Your task to perform on an android device: Go to display settings Image 0: 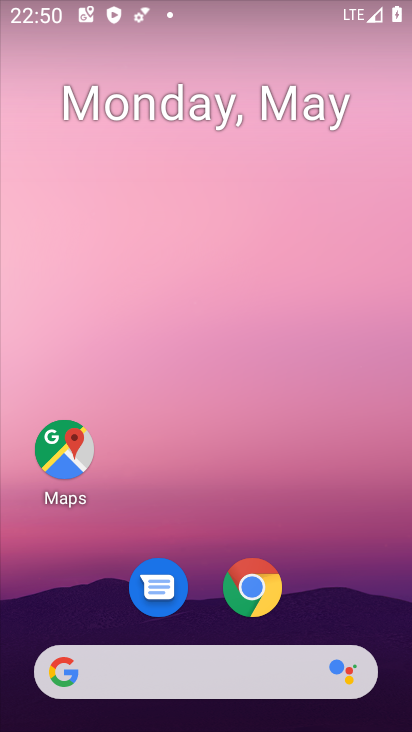
Step 0: drag from (220, 622) to (191, 9)
Your task to perform on an android device: Go to display settings Image 1: 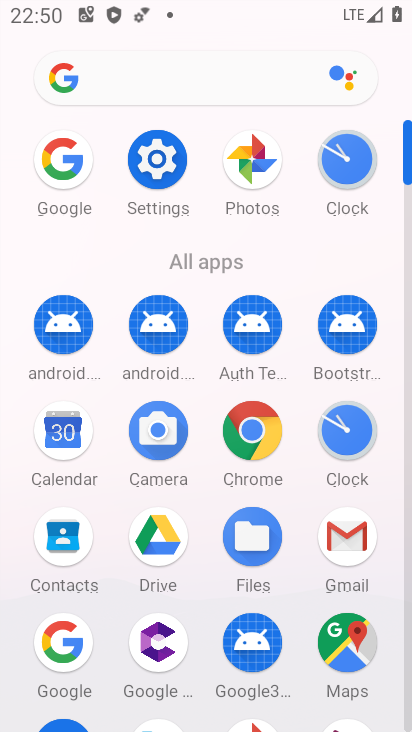
Step 1: click (148, 159)
Your task to perform on an android device: Go to display settings Image 2: 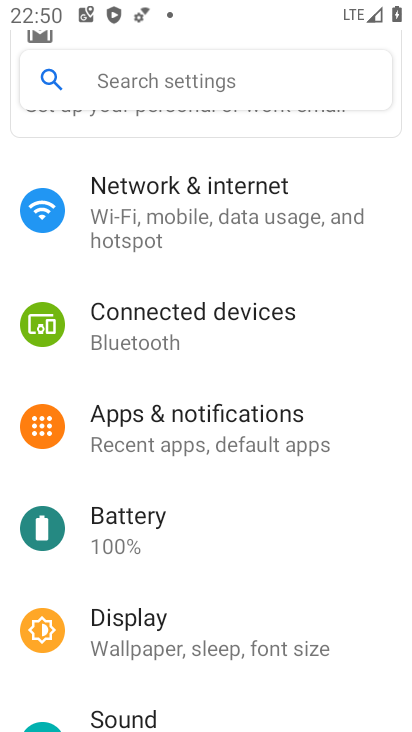
Step 2: click (187, 622)
Your task to perform on an android device: Go to display settings Image 3: 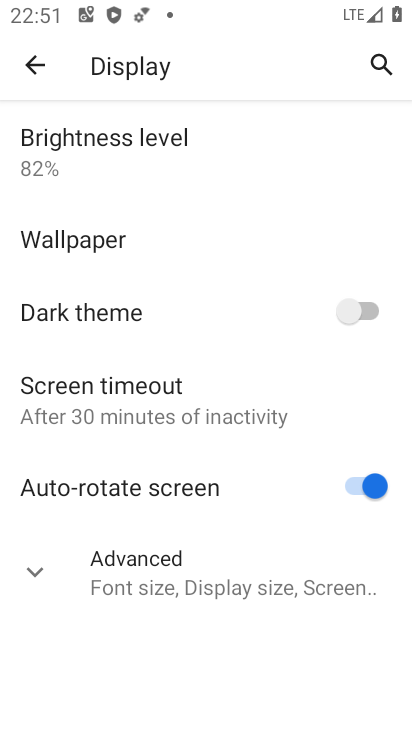
Step 3: click (201, 568)
Your task to perform on an android device: Go to display settings Image 4: 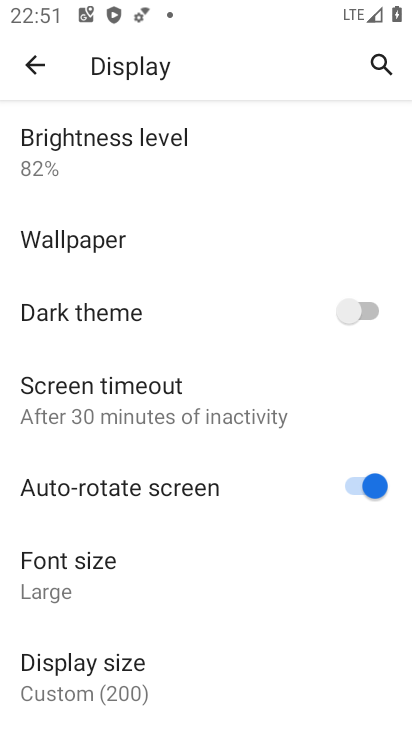
Step 4: task complete